Your task to perform on an android device: open app "Life360: Find Family & Friends" Image 0: 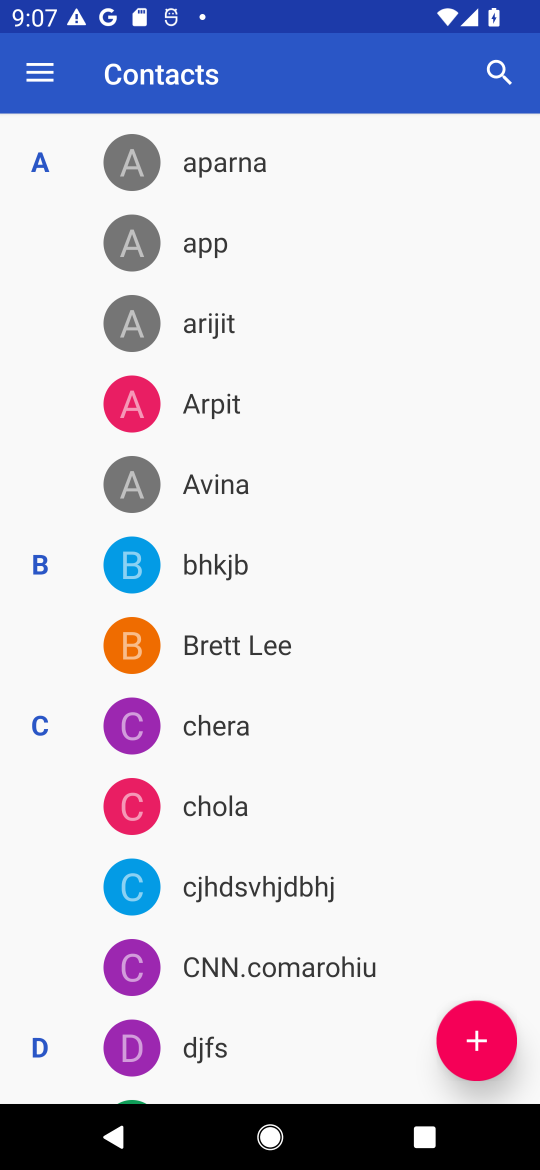
Step 0: press home button
Your task to perform on an android device: open app "Life360: Find Family & Friends" Image 1: 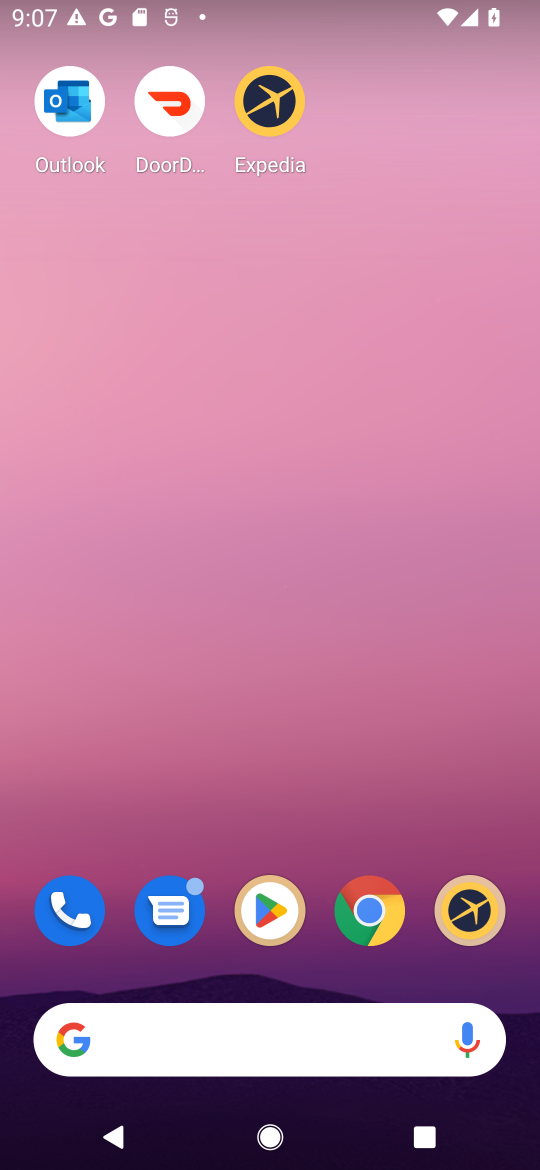
Step 1: click (276, 876)
Your task to perform on an android device: open app "Life360: Find Family & Friends" Image 2: 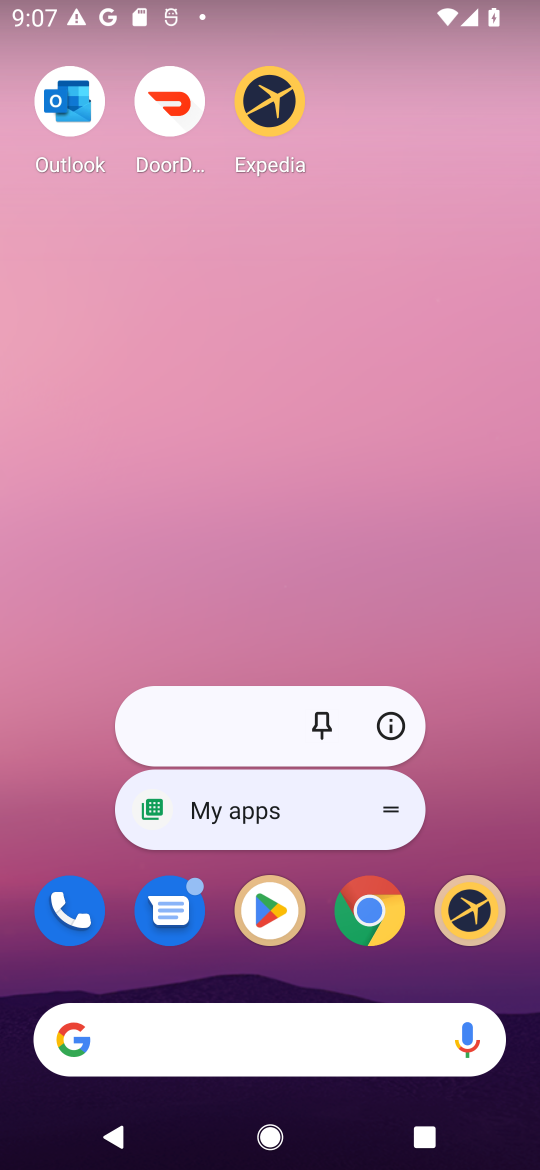
Step 2: click (260, 938)
Your task to perform on an android device: open app "Life360: Find Family & Friends" Image 3: 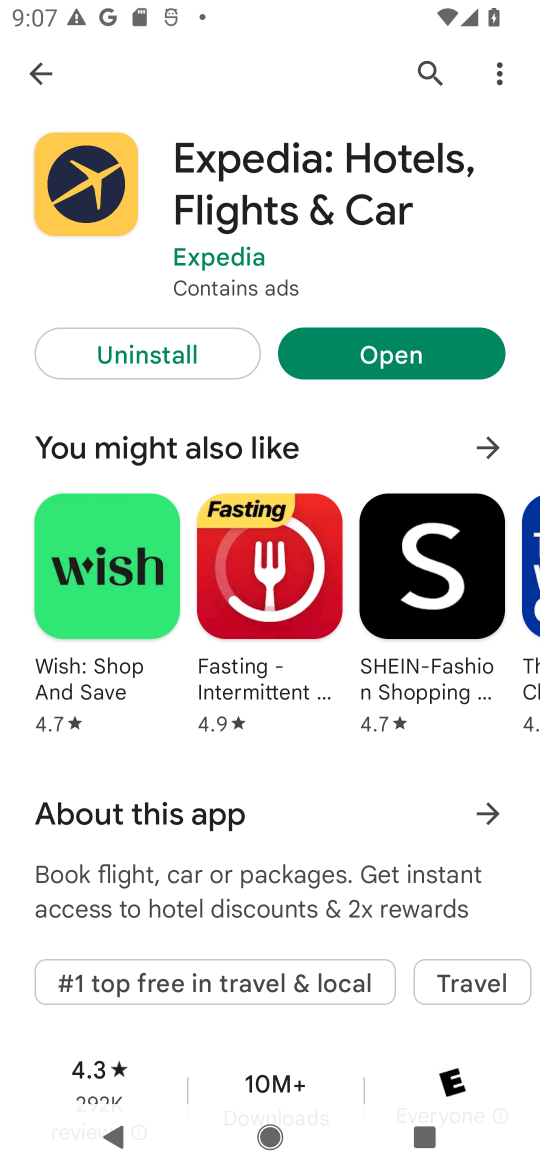
Step 3: click (426, 63)
Your task to perform on an android device: open app "Life360: Find Family & Friends" Image 4: 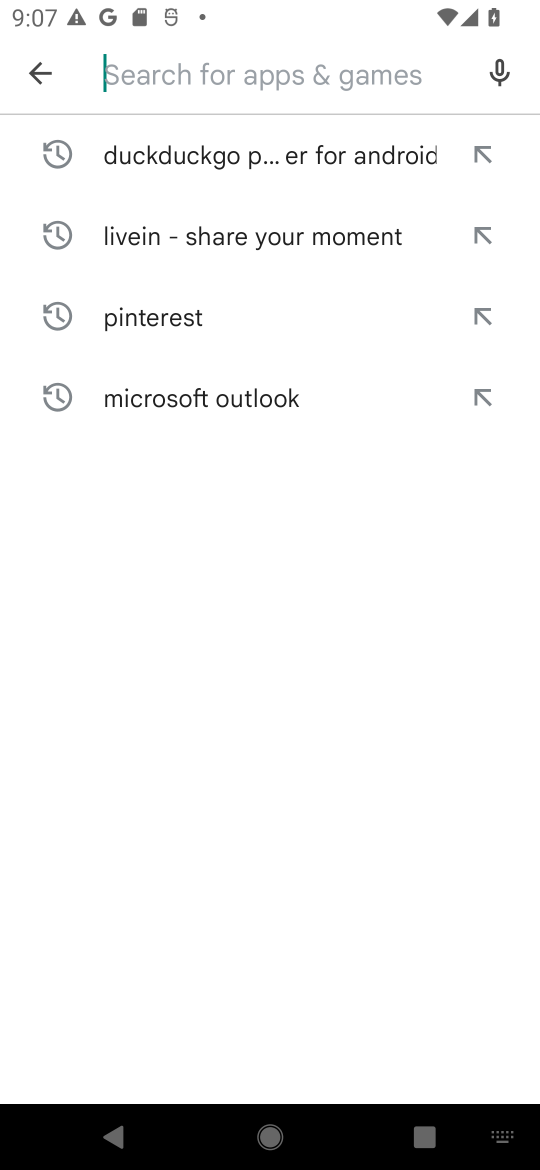
Step 4: click (468, 81)
Your task to perform on an android device: open app "Life360: Find Family & Friends" Image 5: 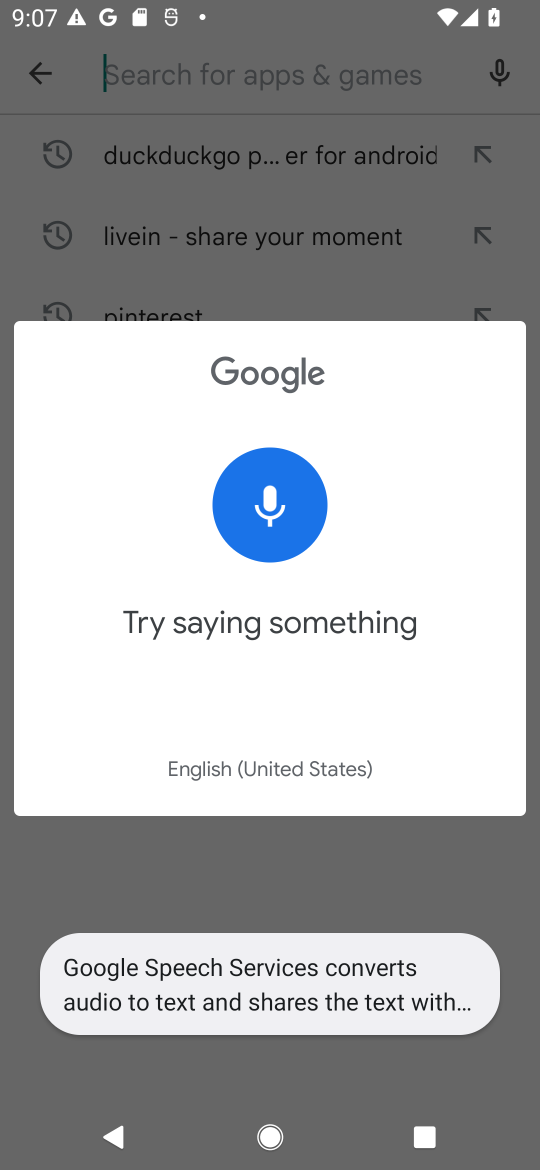
Step 5: click (291, 88)
Your task to perform on an android device: open app "Life360: Find Family & Friends" Image 6: 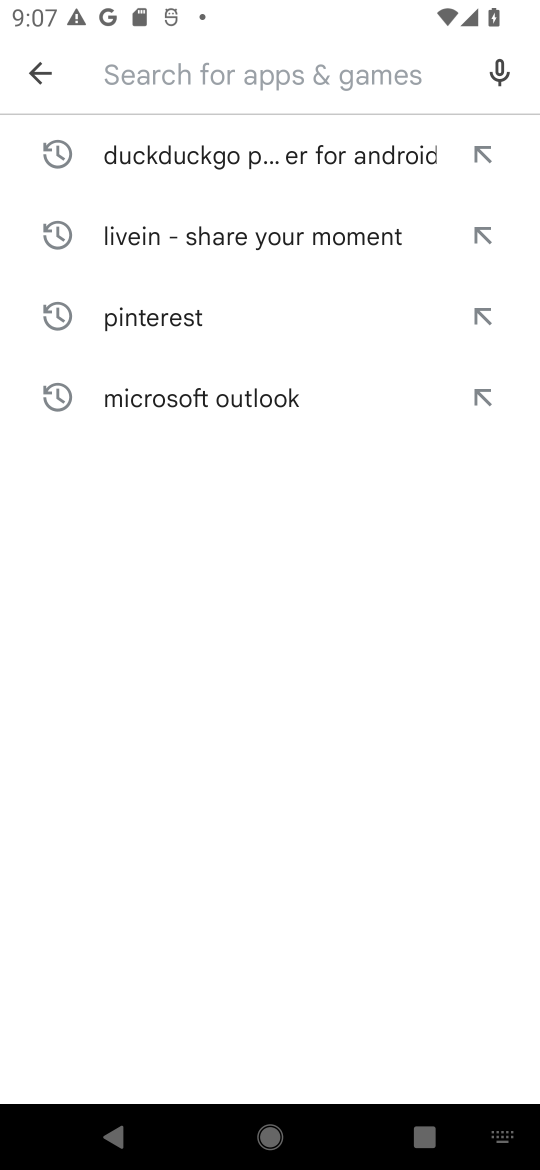
Step 6: type "Life360: Find Family & Friends"
Your task to perform on an android device: open app "Life360: Find Family & Friends" Image 7: 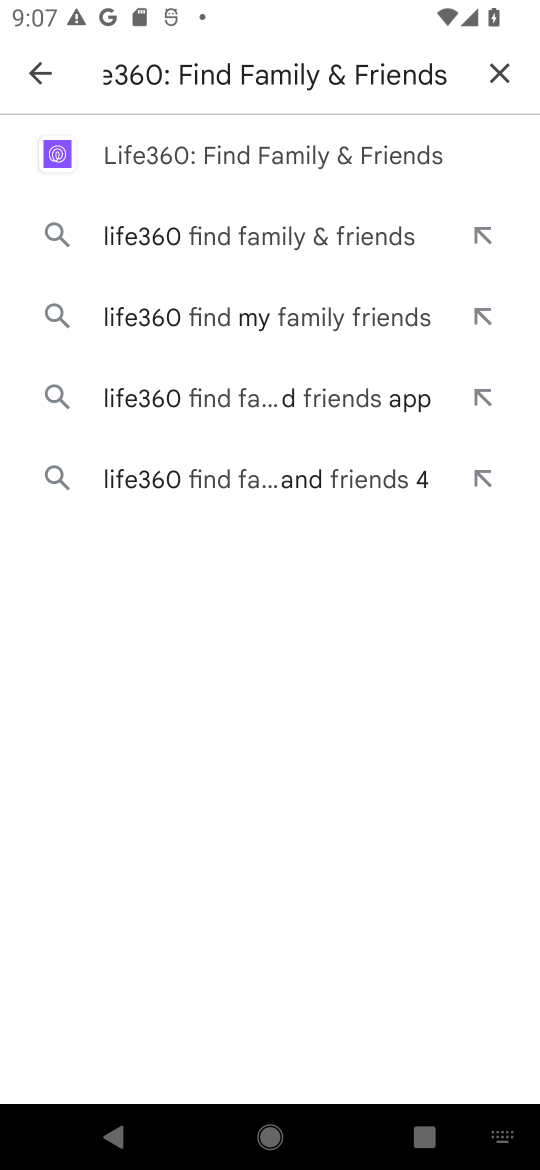
Step 7: click (164, 147)
Your task to perform on an android device: open app "Life360: Find Family & Friends" Image 8: 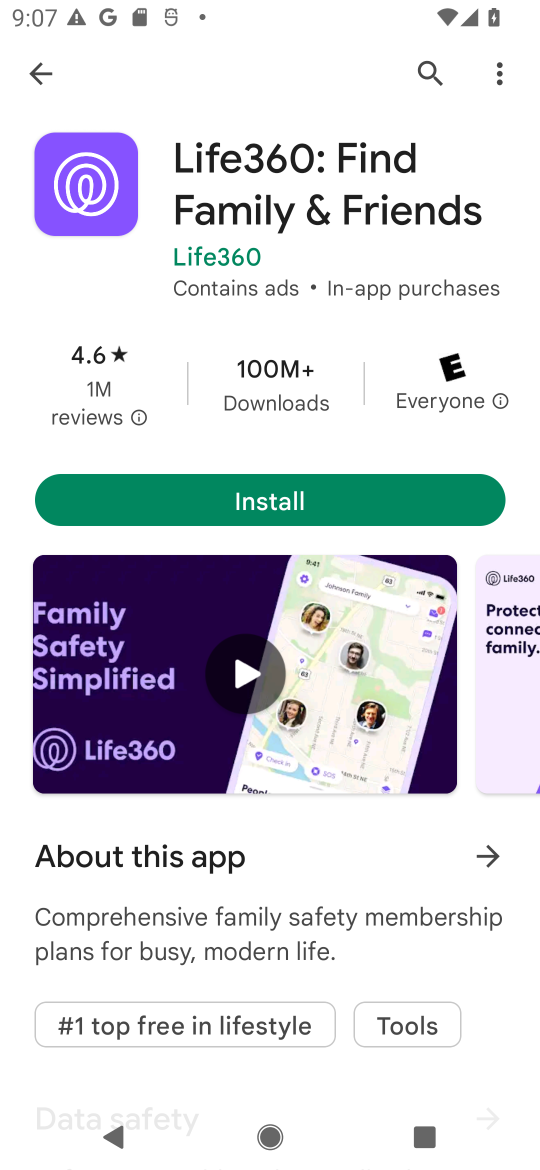
Step 8: task complete